Your task to perform on an android device: Add usb-a to usb-b to the cart on newegg.com Image 0: 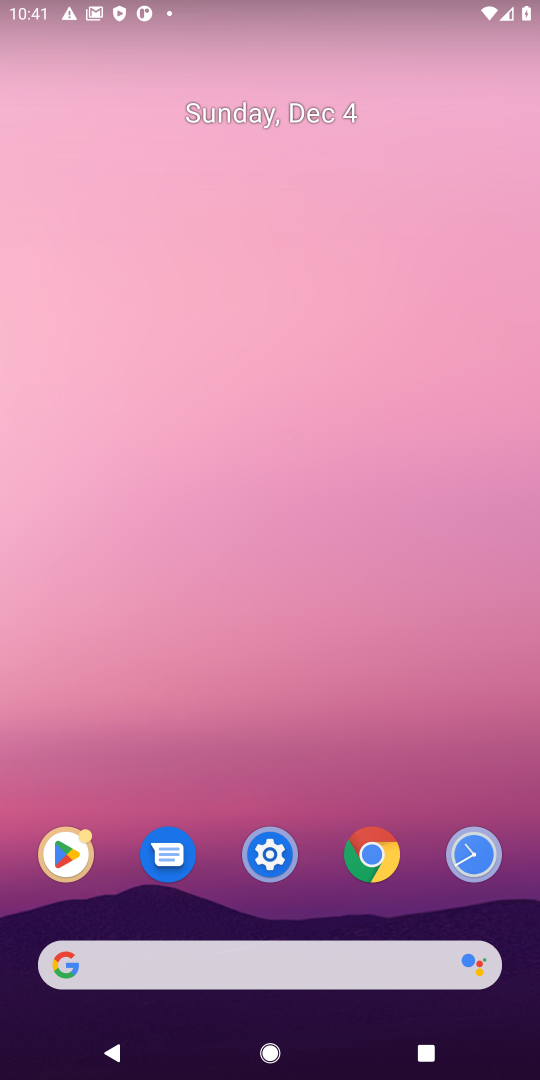
Step 0: click (312, 957)
Your task to perform on an android device: Add usb-a to usb-b to the cart on newegg.com Image 1: 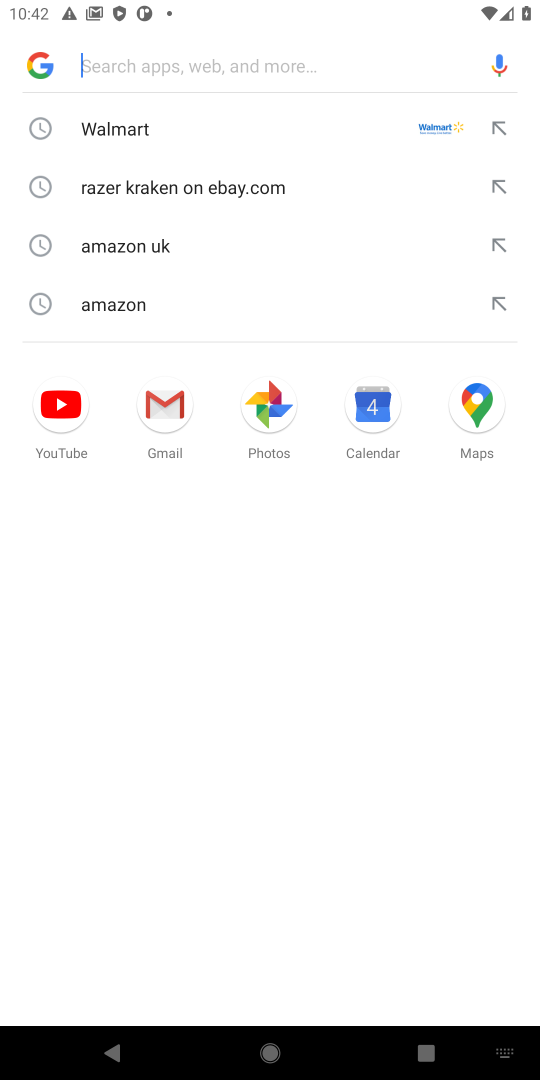
Step 1: type "newegg"
Your task to perform on an android device: Add usb-a to usb-b to the cart on newegg.com Image 2: 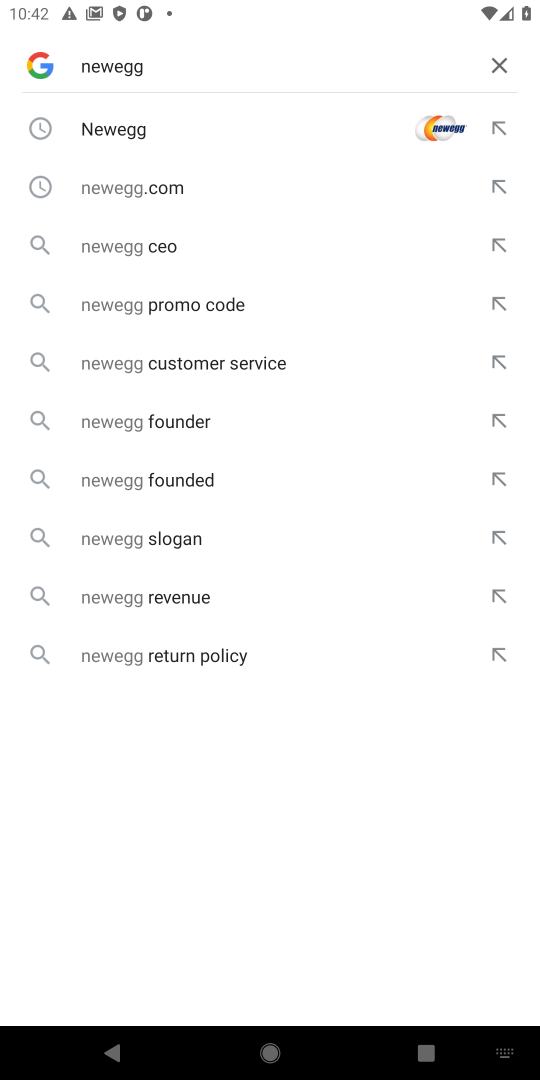
Step 2: click (347, 146)
Your task to perform on an android device: Add usb-a to usb-b to the cart on newegg.com Image 3: 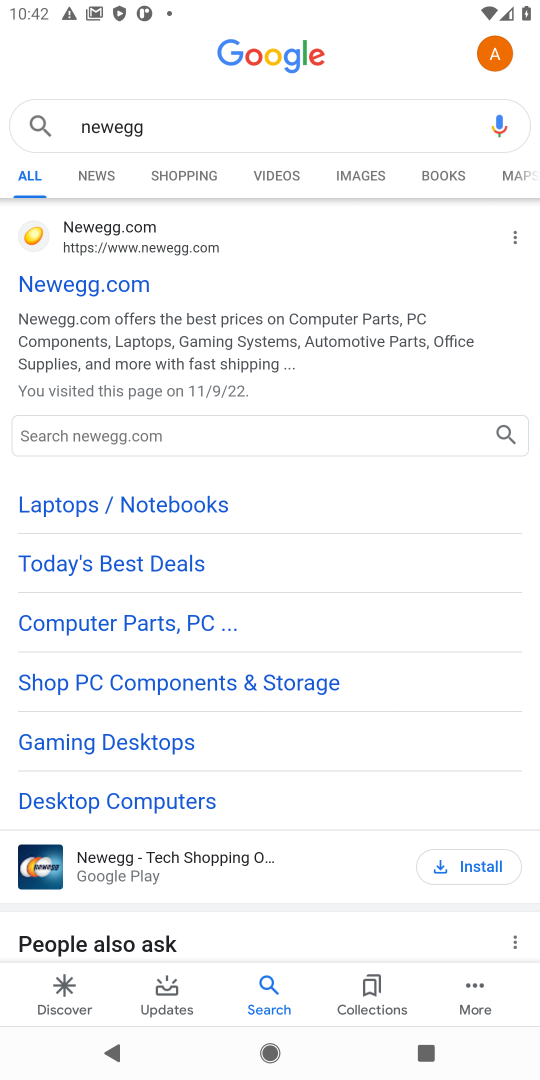
Step 3: click (19, 298)
Your task to perform on an android device: Add usb-a to usb-b to the cart on newegg.com Image 4: 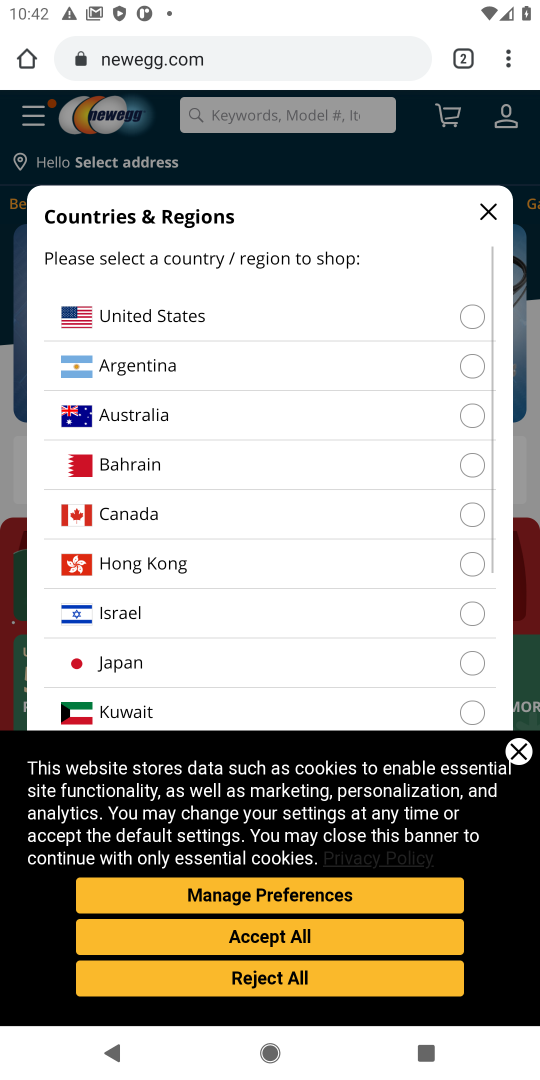
Step 4: click (286, 323)
Your task to perform on an android device: Add usb-a to usb-b to the cart on newegg.com Image 5: 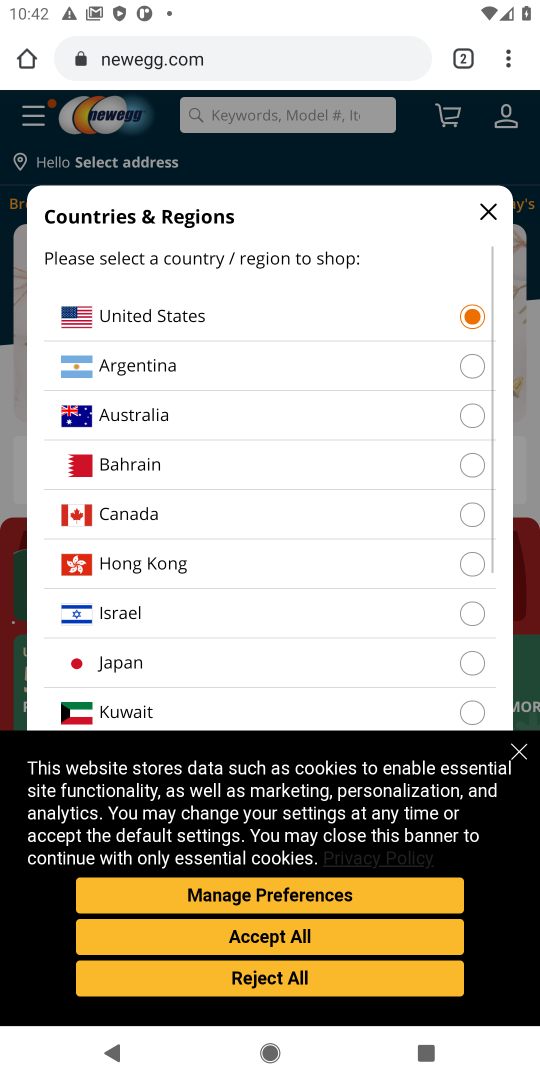
Step 5: click (270, 935)
Your task to perform on an android device: Add usb-a to usb-b to the cart on newegg.com Image 6: 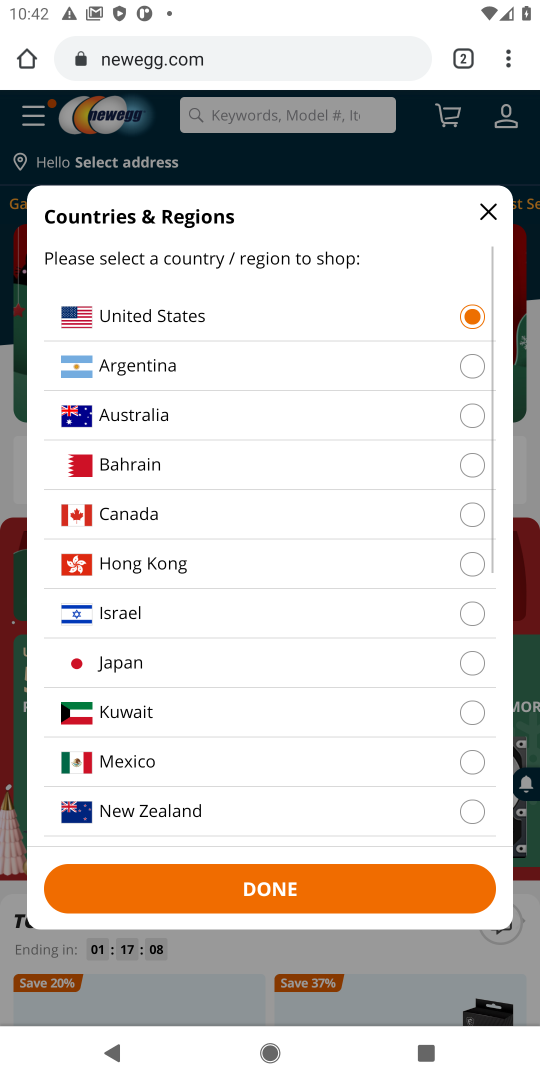
Step 6: click (313, 880)
Your task to perform on an android device: Add usb-a to usb-b to the cart on newegg.com Image 7: 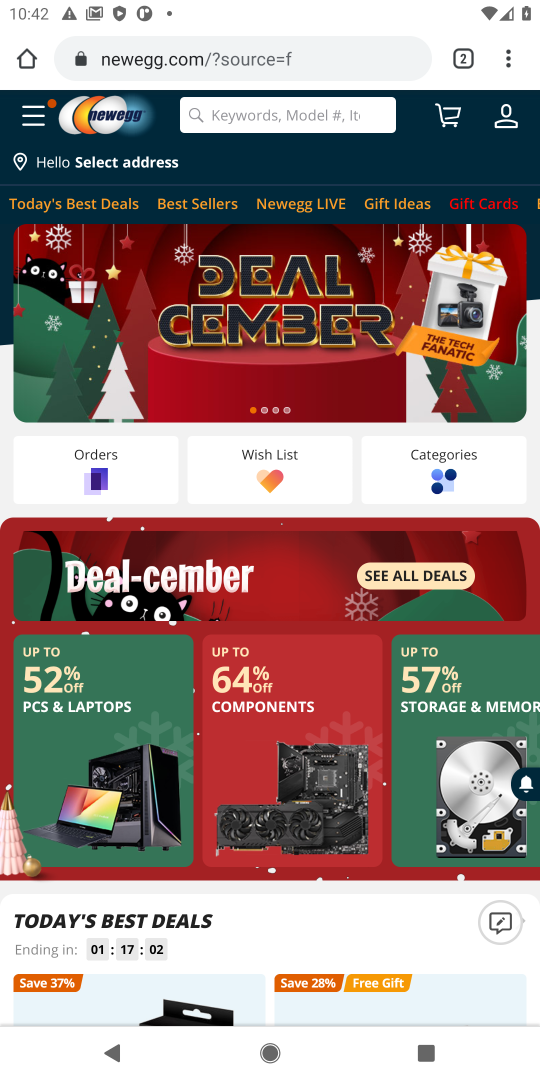
Step 7: click (278, 112)
Your task to perform on an android device: Add usb-a to usb-b to the cart on newegg.com Image 8: 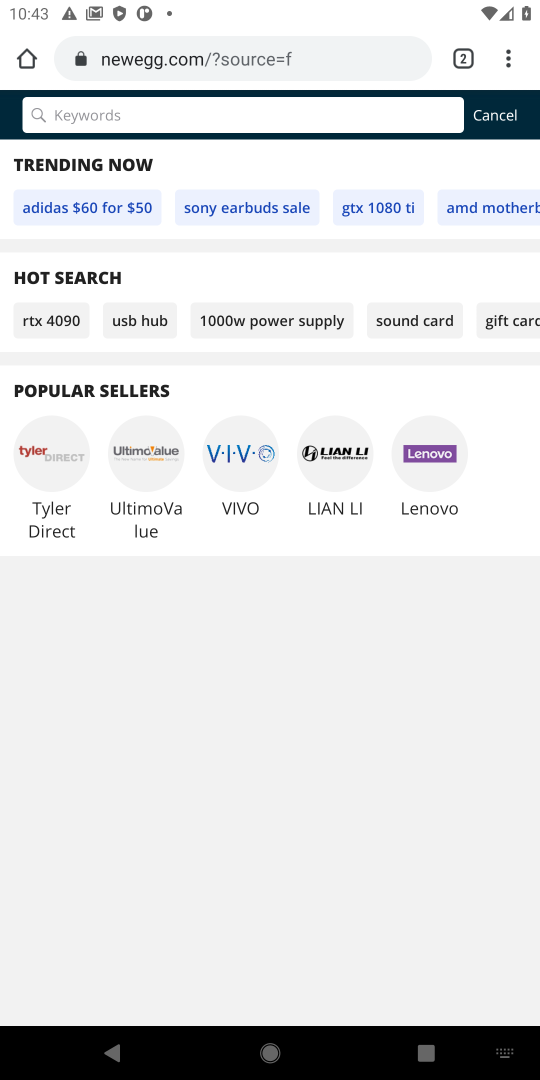
Step 8: type "newegg"
Your task to perform on an android device: Add usb-a to usb-b to the cart on newegg.com Image 9: 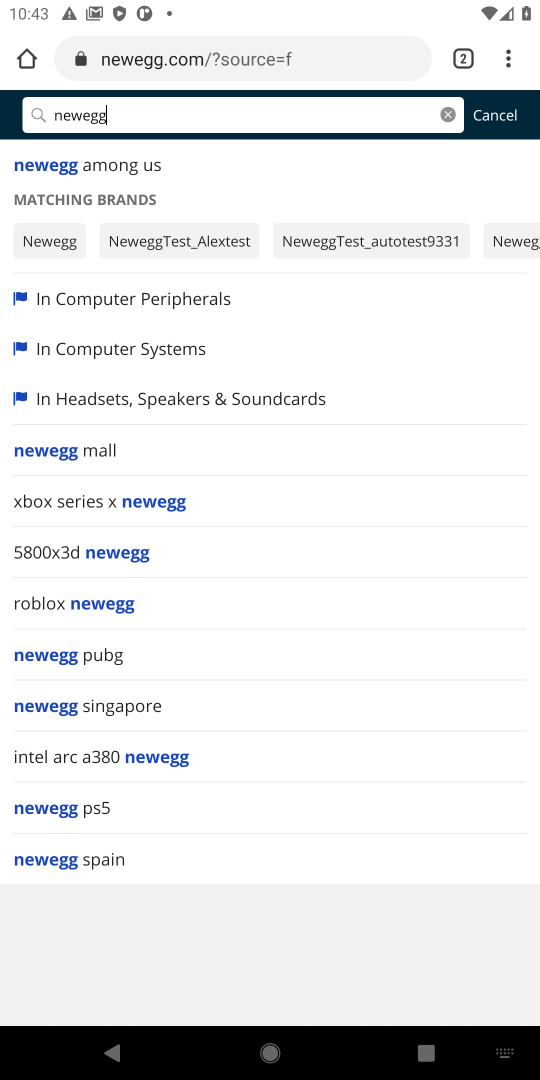
Step 9: click (206, 171)
Your task to perform on an android device: Add usb-a to usb-b to the cart on newegg.com Image 10: 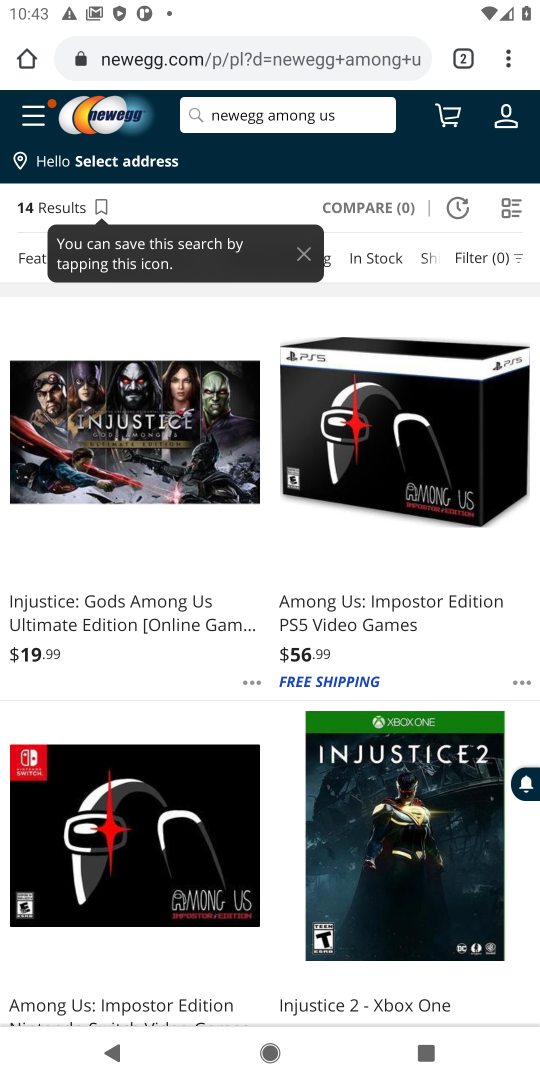
Step 10: task complete